Your task to perform on an android device: Go to sound settings Image 0: 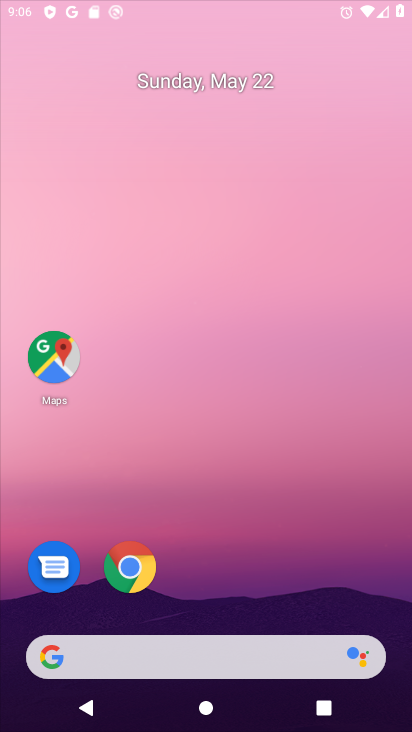
Step 0: drag from (207, 618) to (269, 15)
Your task to perform on an android device: Go to sound settings Image 1: 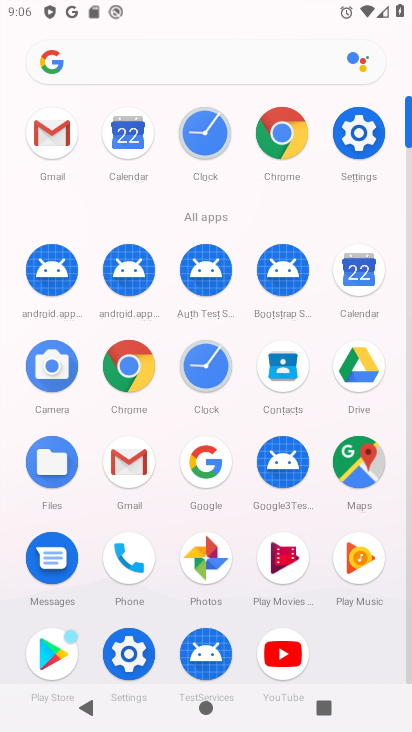
Step 1: click (365, 148)
Your task to perform on an android device: Go to sound settings Image 2: 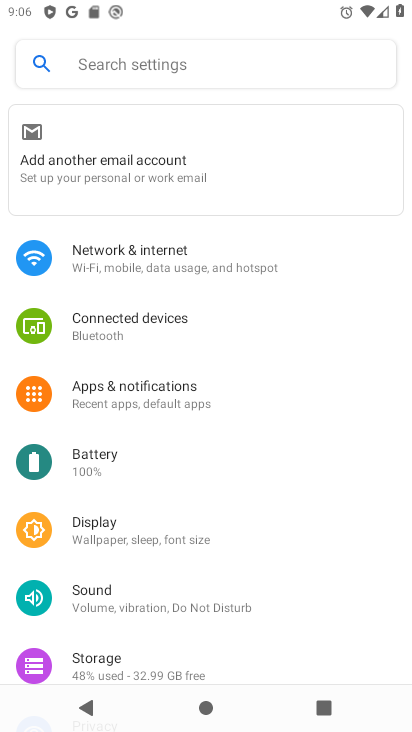
Step 2: click (127, 607)
Your task to perform on an android device: Go to sound settings Image 3: 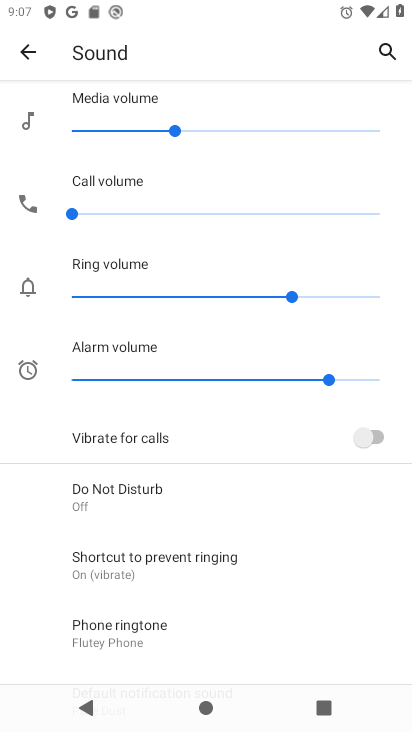
Step 3: task complete